Your task to perform on an android device: Add "bose soundsport free" to the cart on amazon Image 0: 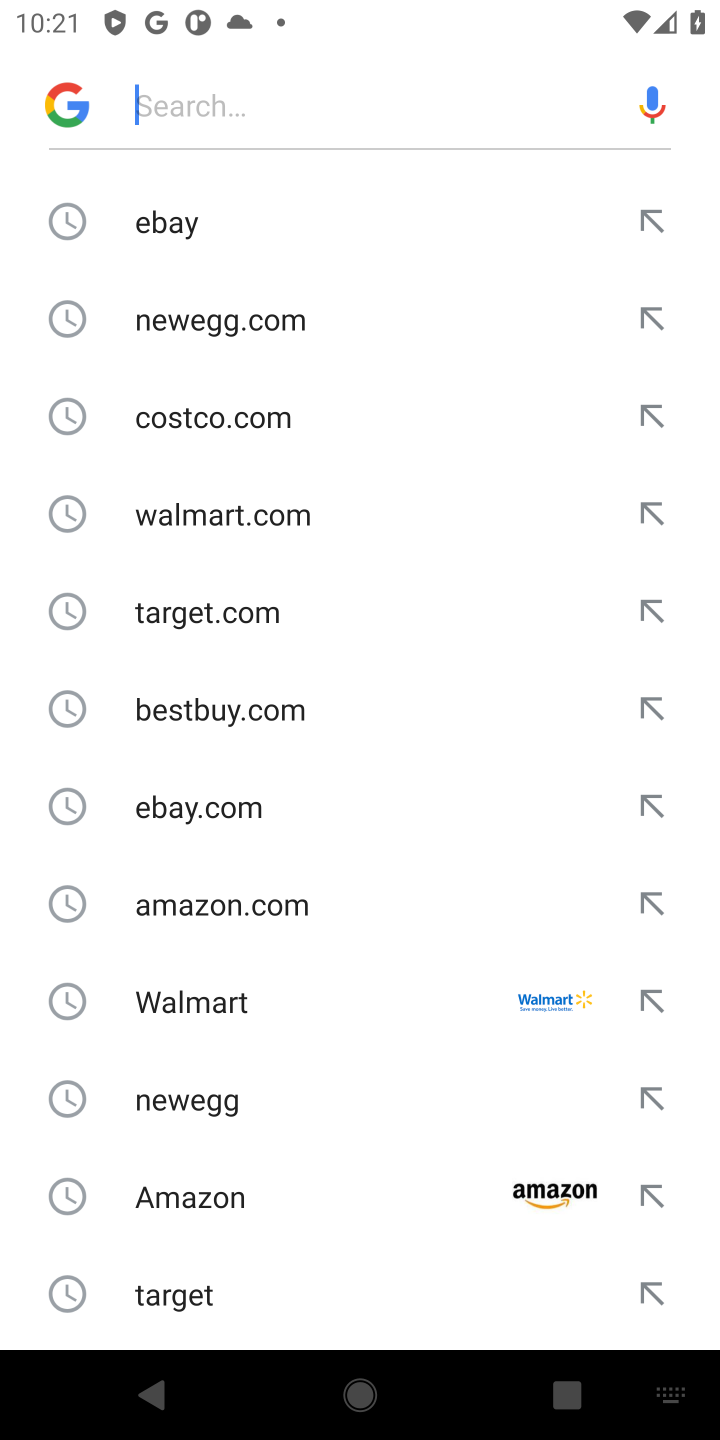
Step 0: press home button
Your task to perform on an android device: Add "bose soundsport free" to the cart on amazon Image 1: 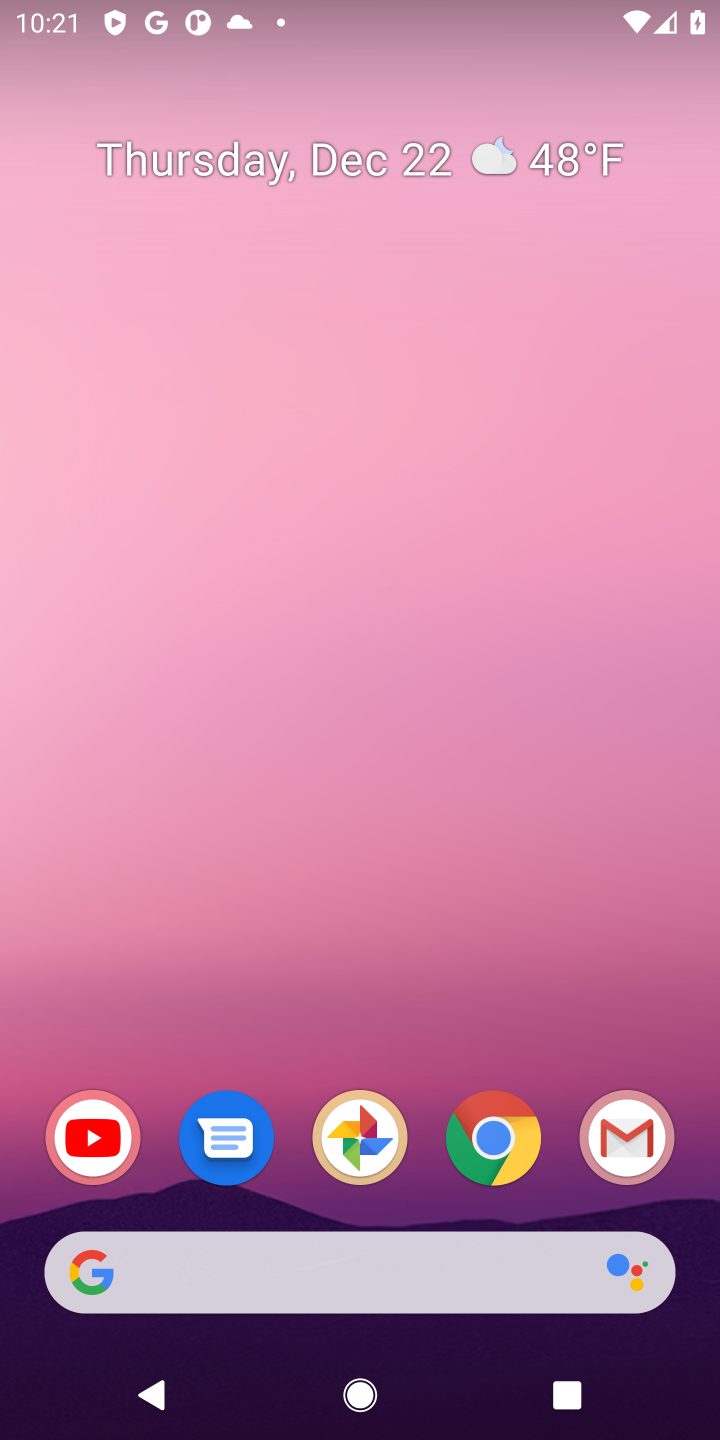
Step 1: click (511, 1150)
Your task to perform on an android device: Add "bose soundsport free" to the cart on amazon Image 2: 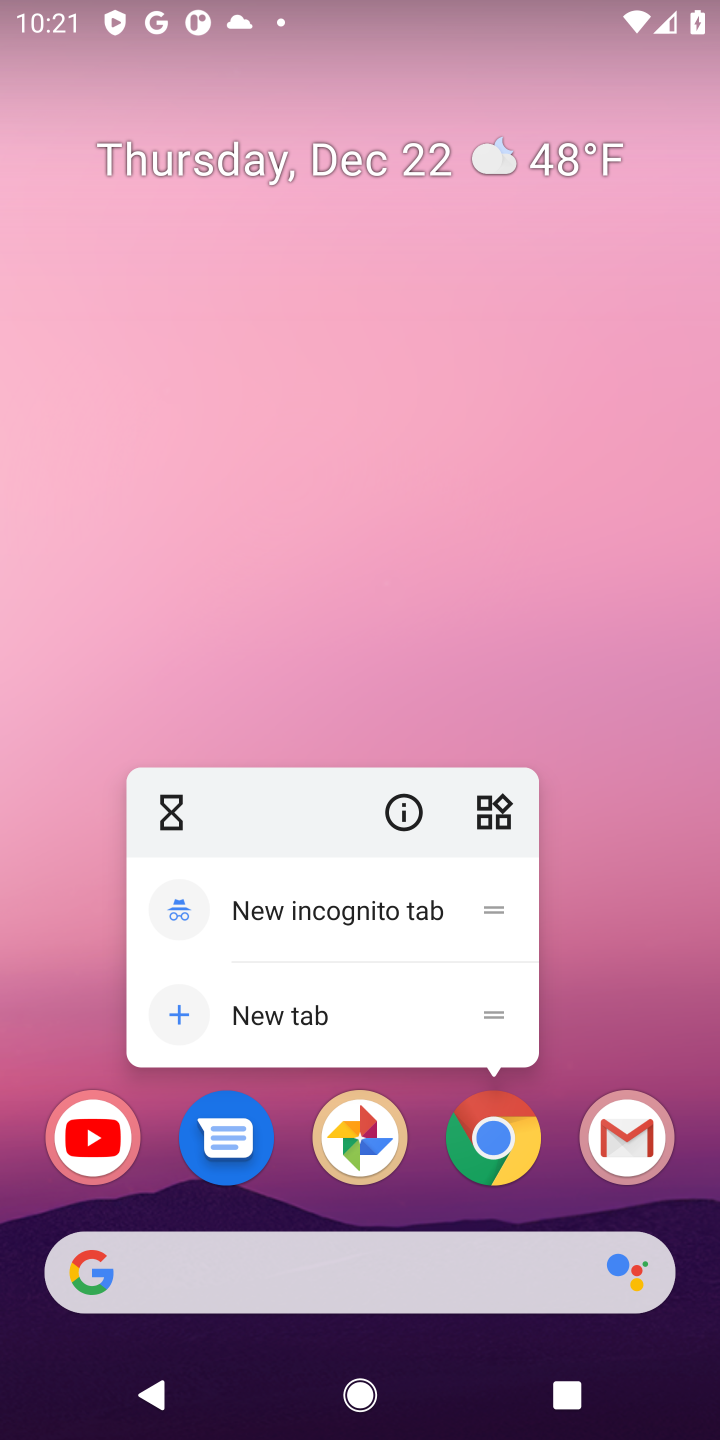
Step 2: click (511, 1150)
Your task to perform on an android device: Add "bose soundsport free" to the cart on amazon Image 3: 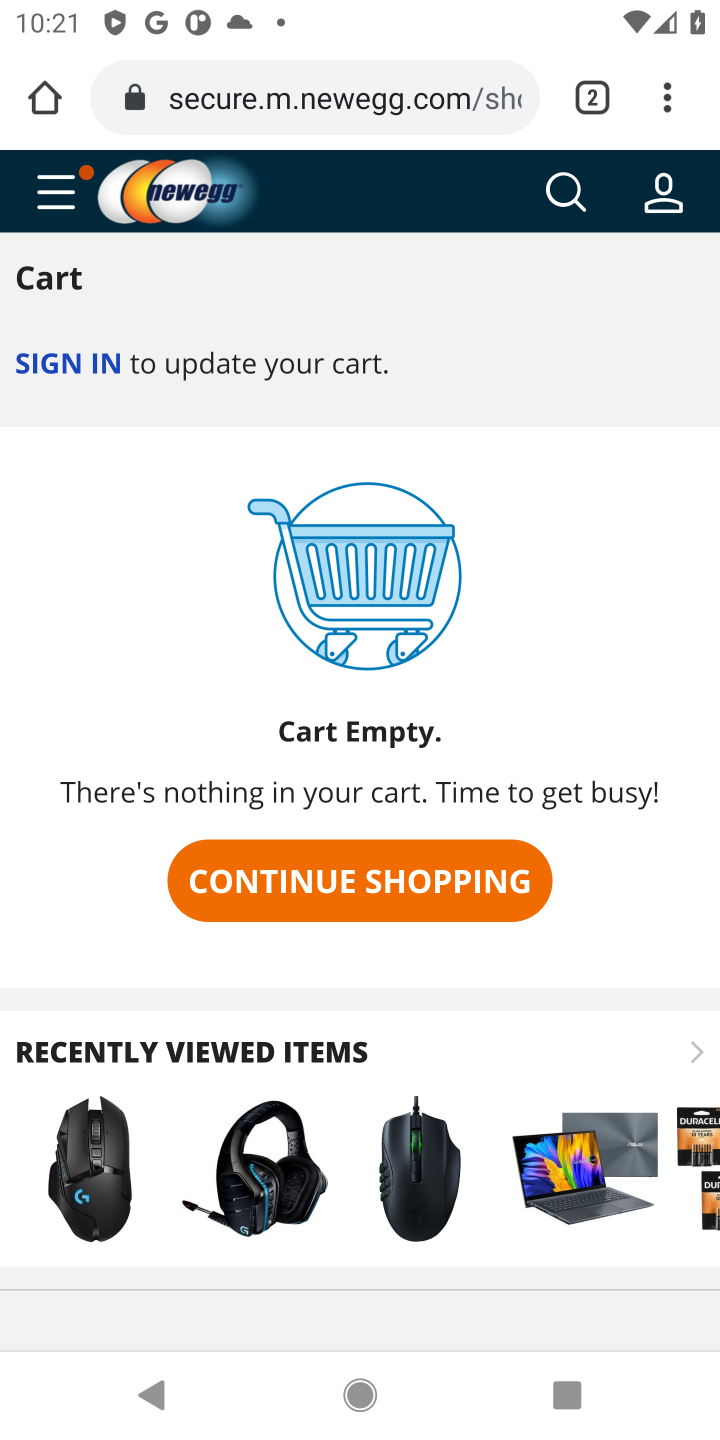
Step 3: click (381, 82)
Your task to perform on an android device: Add "bose soundsport free" to the cart on amazon Image 4: 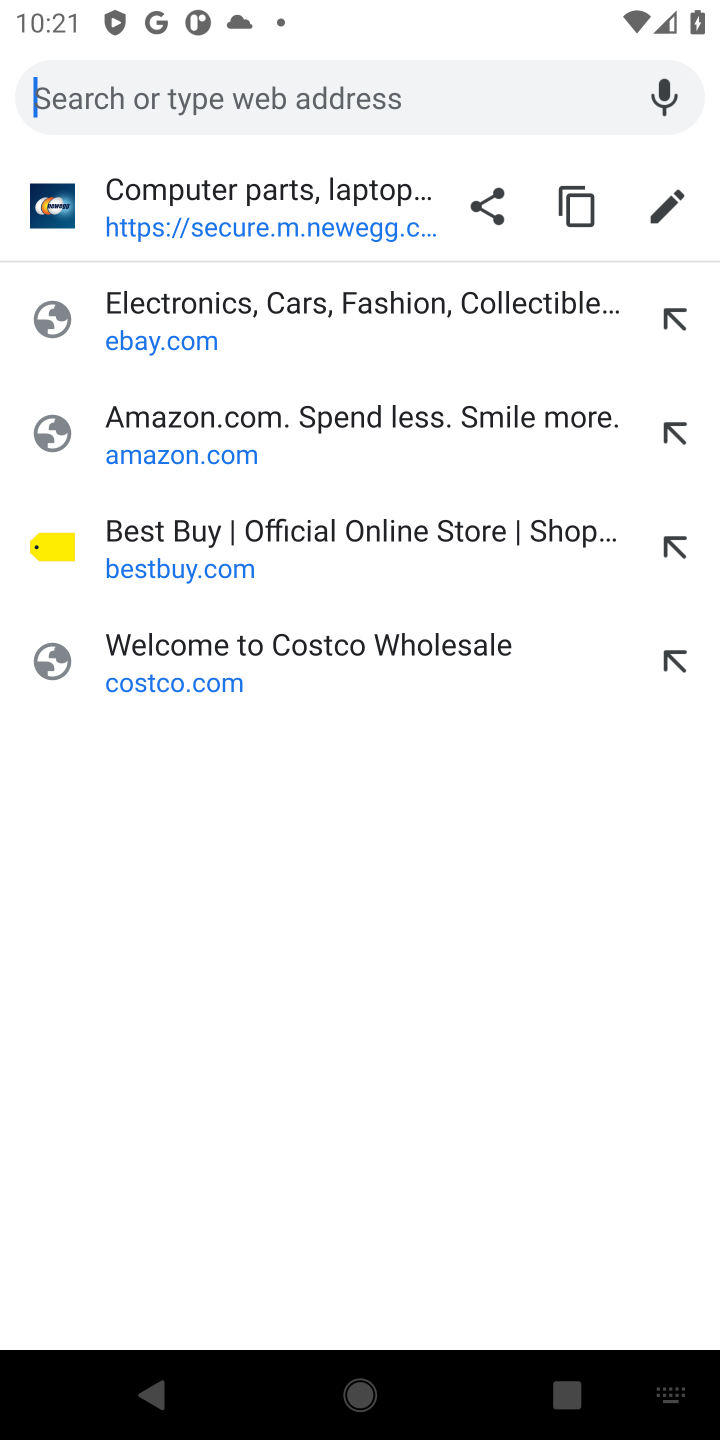
Step 4: click (312, 415)
Your task to perform on an android device: Add "bose soundsport free" to the cart on amazon Image 5: 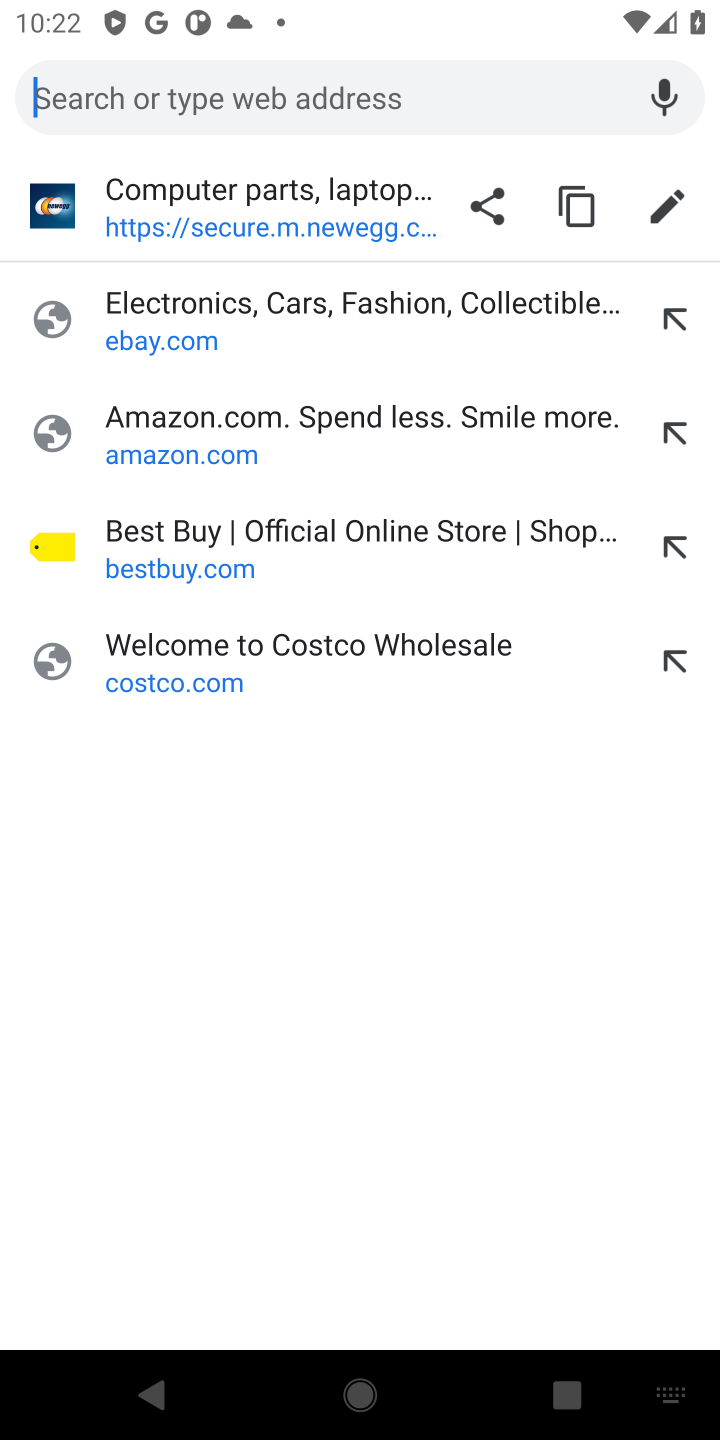
Step 5: click (221, 422)
Your task to perform on an android device: Add "bose soundsport free" to the cart on amazon Image 6: 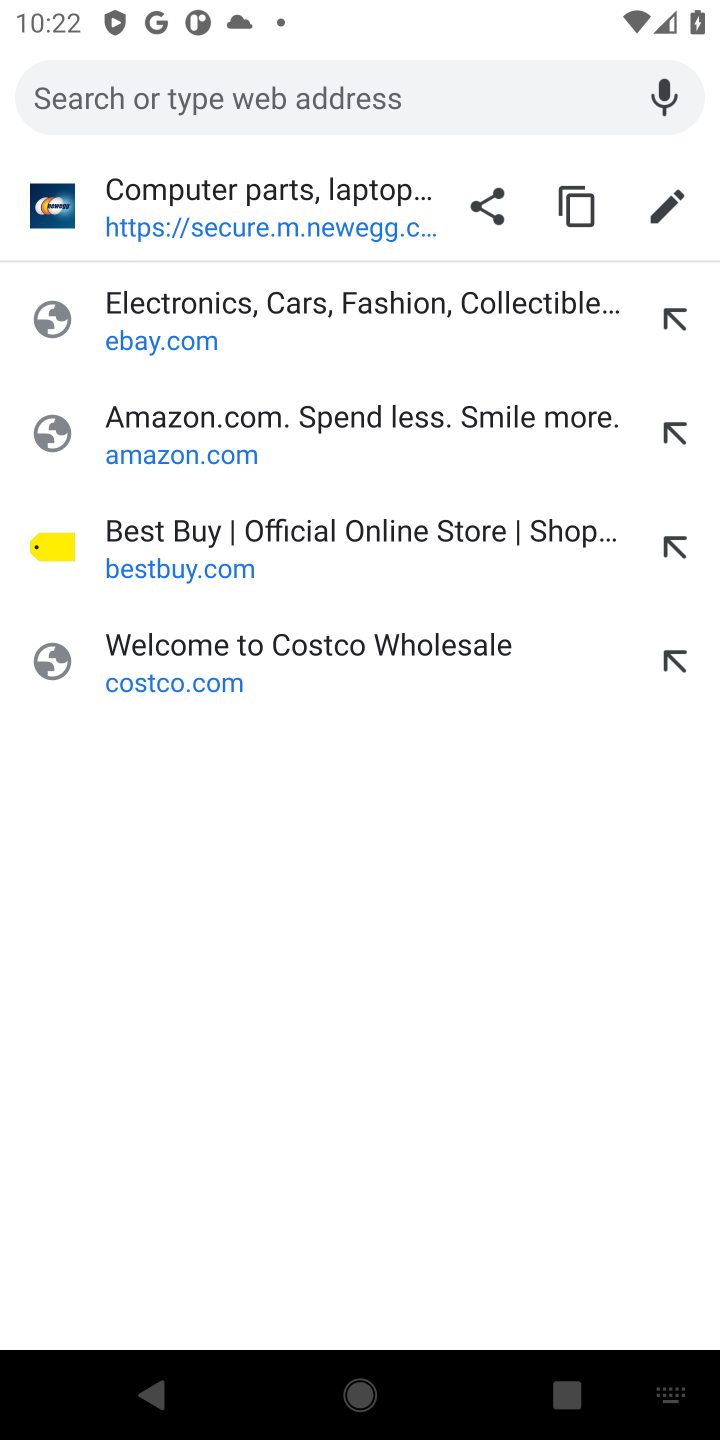
Step 6: click (313, 413)
Your task to perform on an android device: Add "bose soundsport free" to the cart on amazon Image 7: 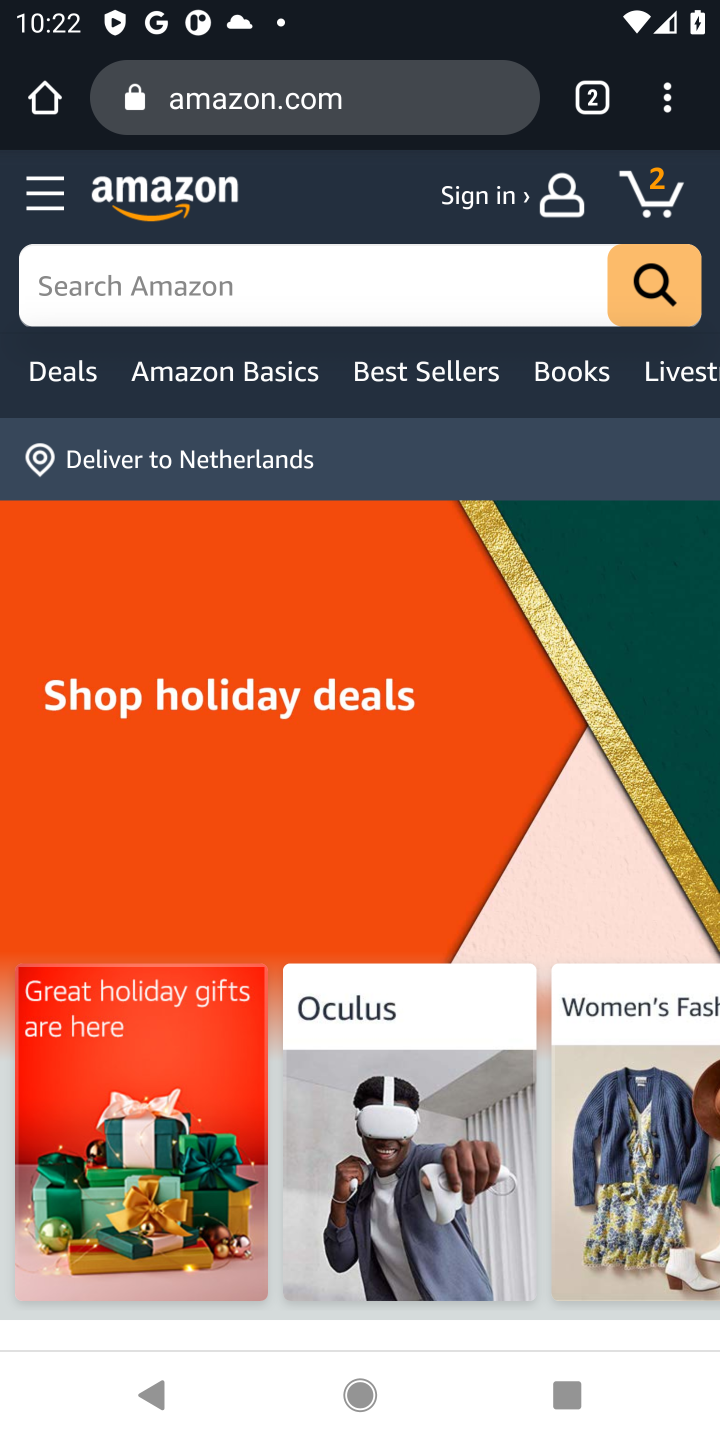
Step 7: click (392, 290)
Your task to perform on an android device: Add "bose soundsport free" to the cart on amazon Image 8: 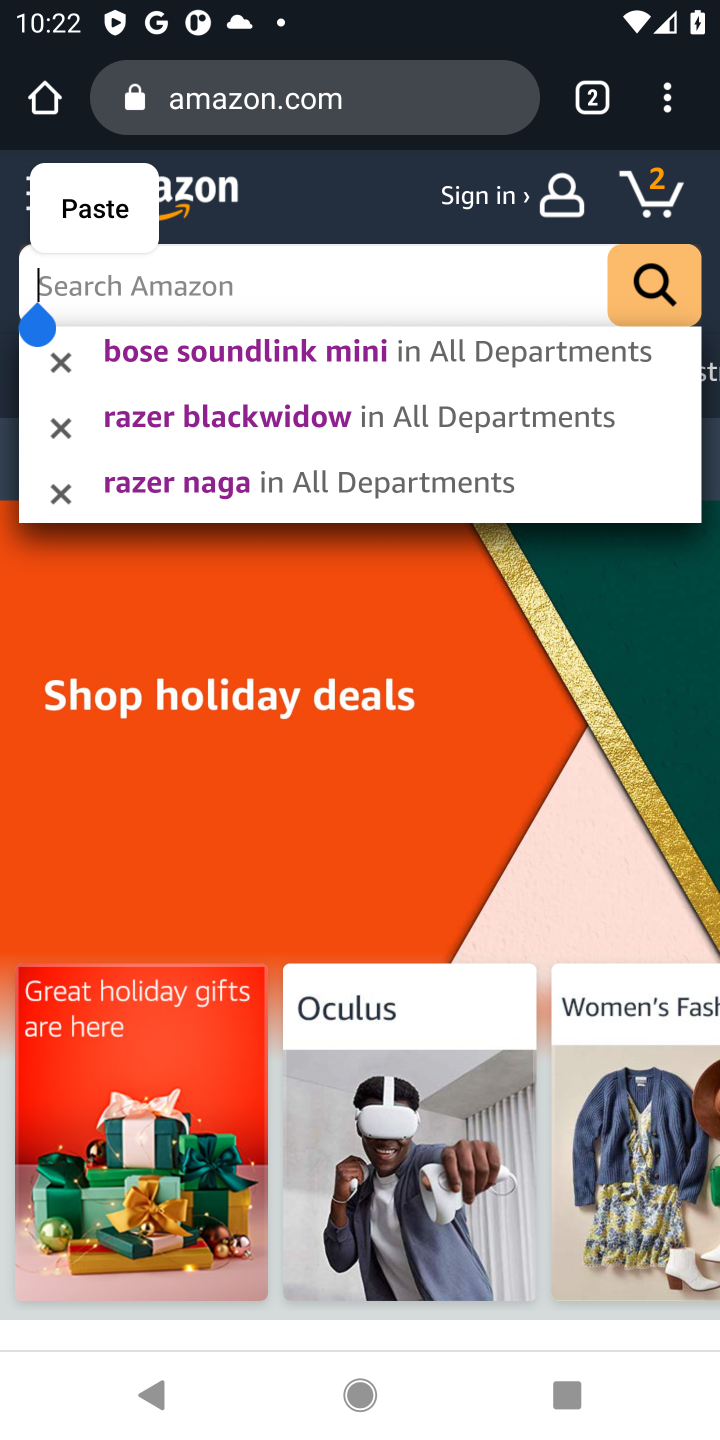
Step 8: type "bose soundsport free"
Your task to perform on an android device: Add "bose soundsport free" to the cart on amazon Image 9: 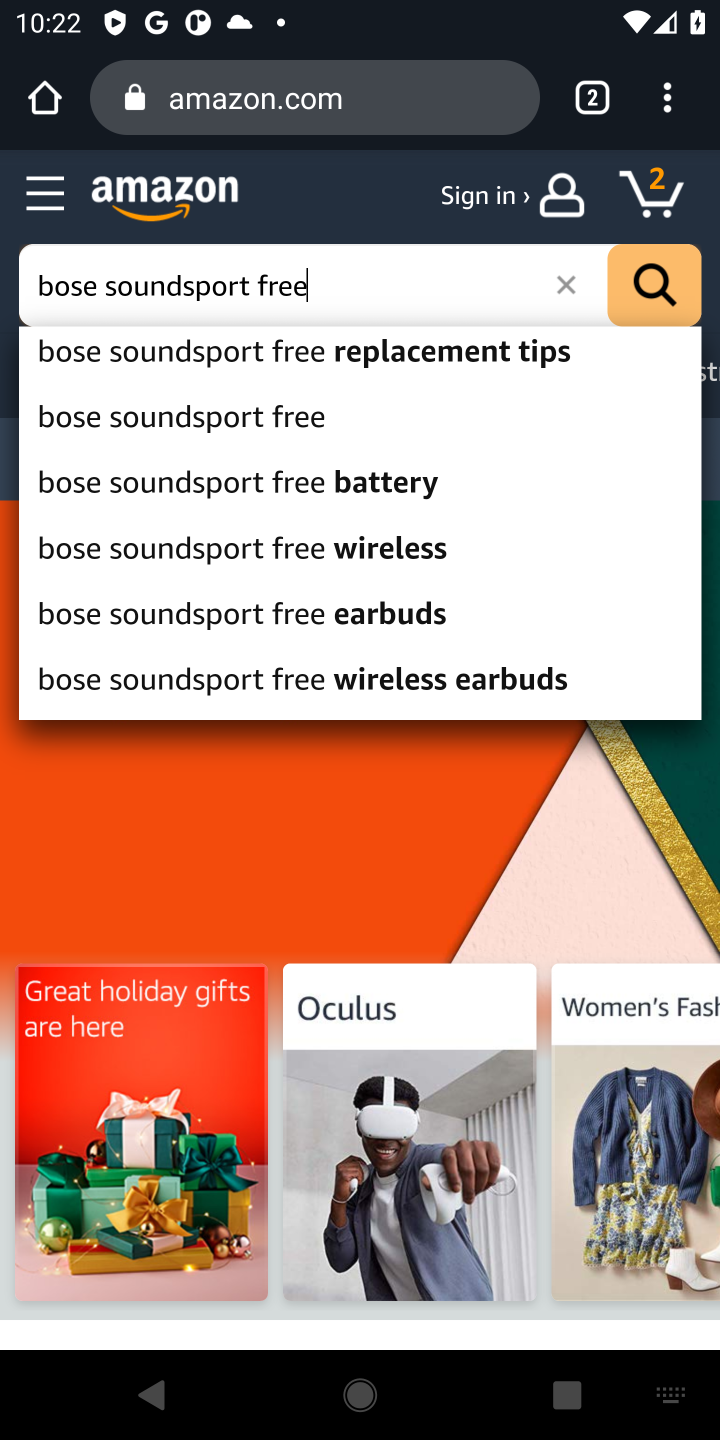
Step 9: press enter
Your task to perform on an android device: Add "bose soundsport free" to the cart on amazon Image 10: 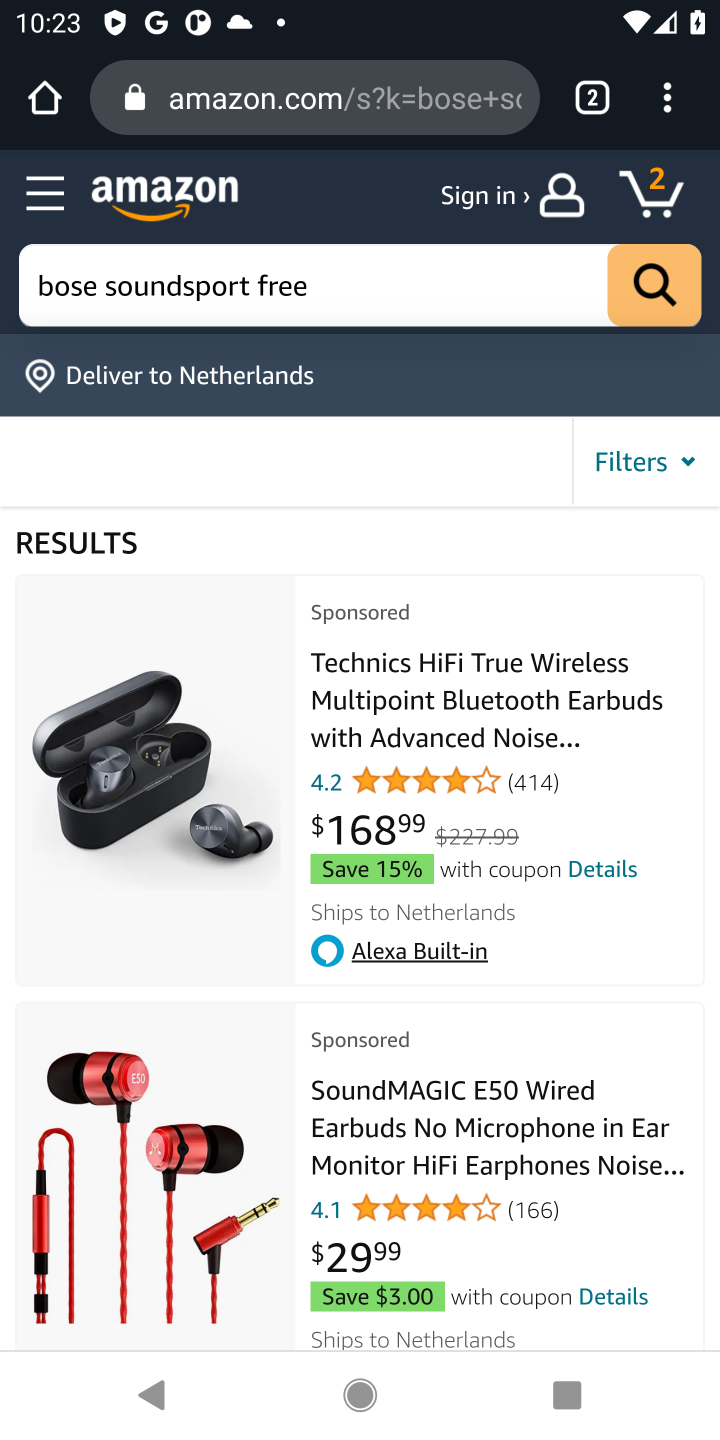
Step 10: drag from (508, 1202) to (513, 781)
Your task to perform on an android device: Add "bose soundsport free" to the cart on amazon Image 11: 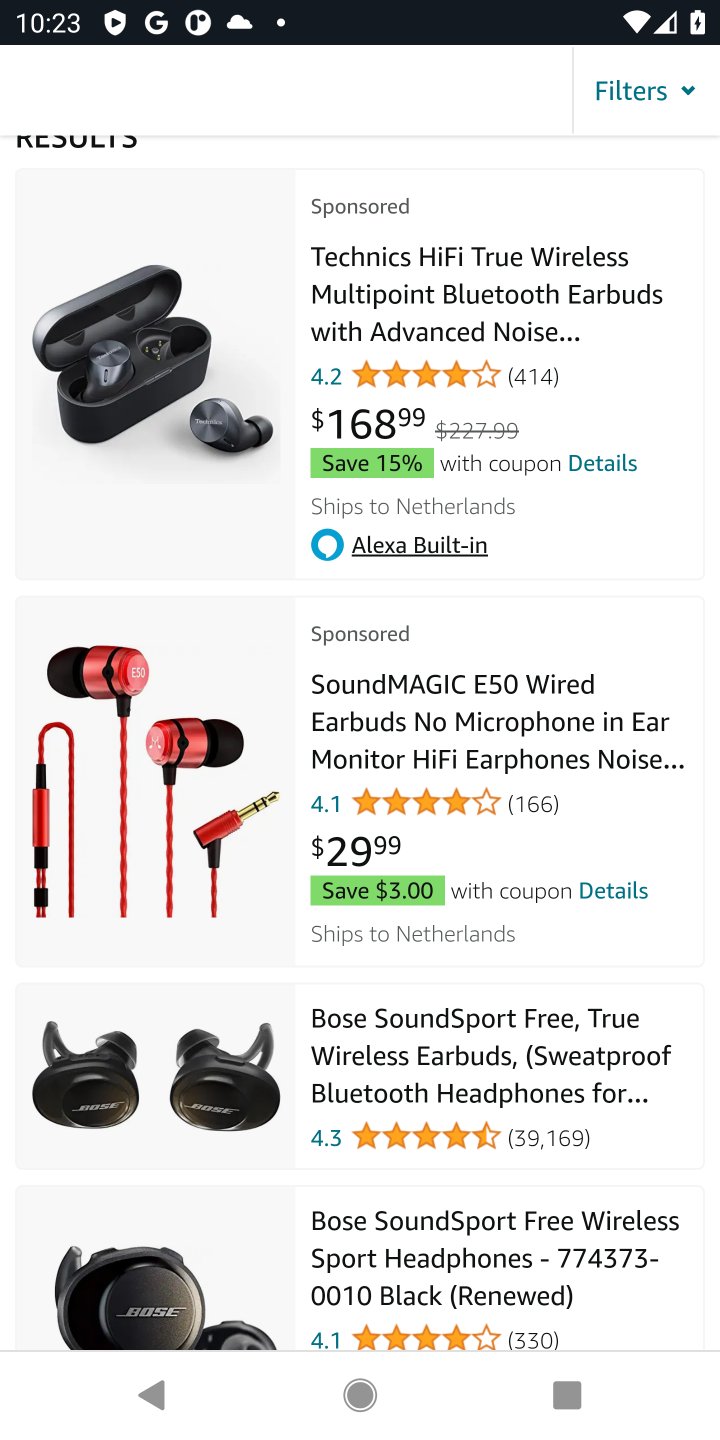
Step 11: click (171, 1102)
Your task to perform on an android device: Add "bose soundsport free" to the cart on amazon Image 12: 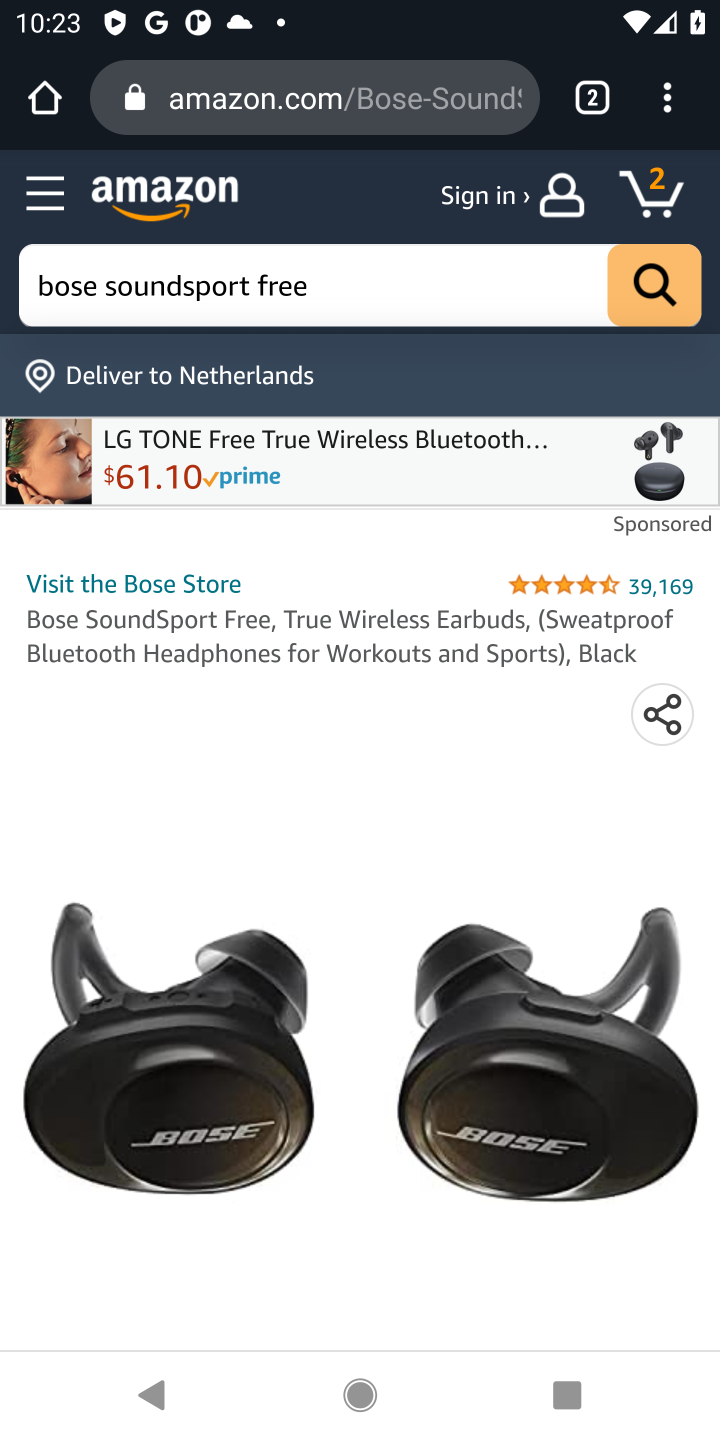
Step 12: drag from (370, 1066) to (457, 275)
Your task to perform on an android device: Add "bose soundsport free" to the cart on amazon Image 13: 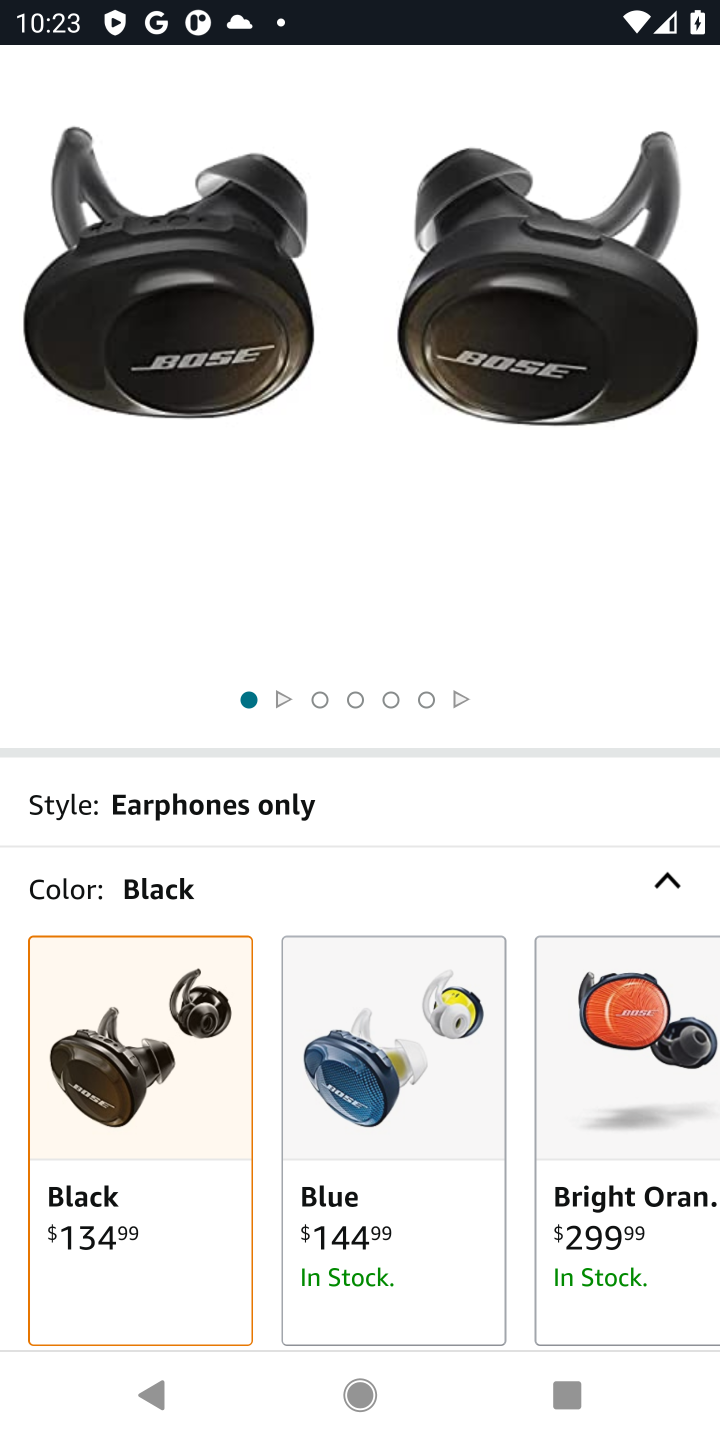
Step 13: drag from (472, 843) to (482, 309)
Your task to perform on an android device: Add "bose soundsport free" to the cart on amazon Image 14: 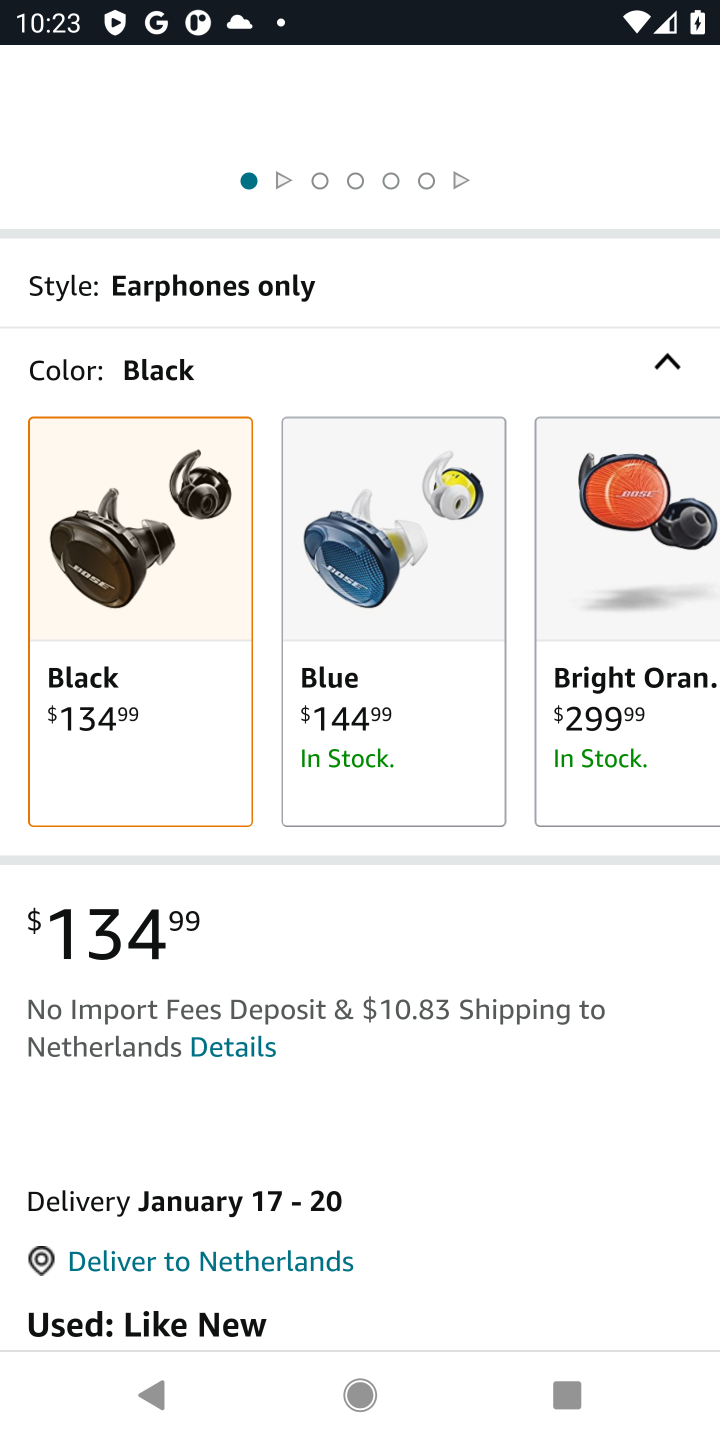
Step 14: drag from (549, 881) to (551, 379)
Your task to perform on an android device: Add "bose soundsport free" to the cart on amazon Image 15: 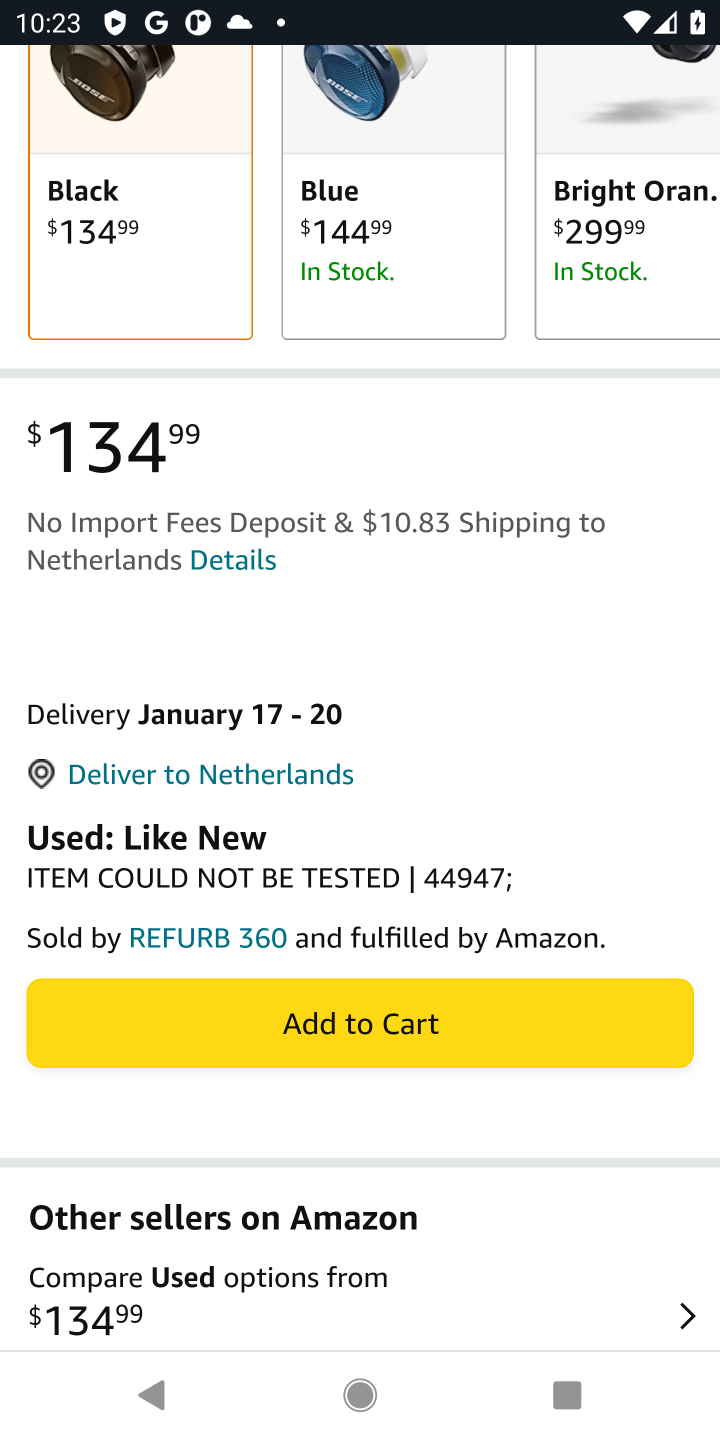
Step 15: click (377, 1018)
Your task to perform on an android device: Add "bose soundsport free" to the cart on amazon Image 16: 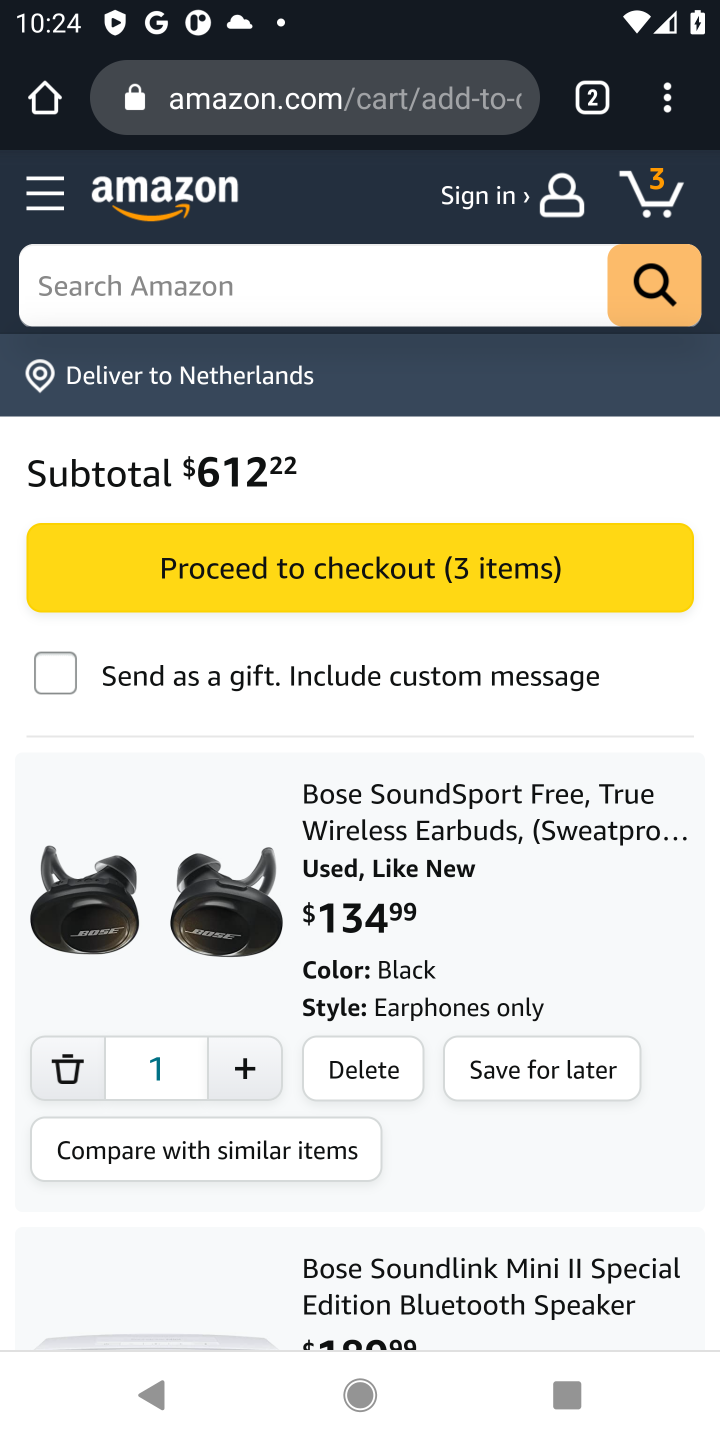
Step 16: task complete